Your task to perform on an android device: uninstall "DoorDash - Food Delivery" Image 0: 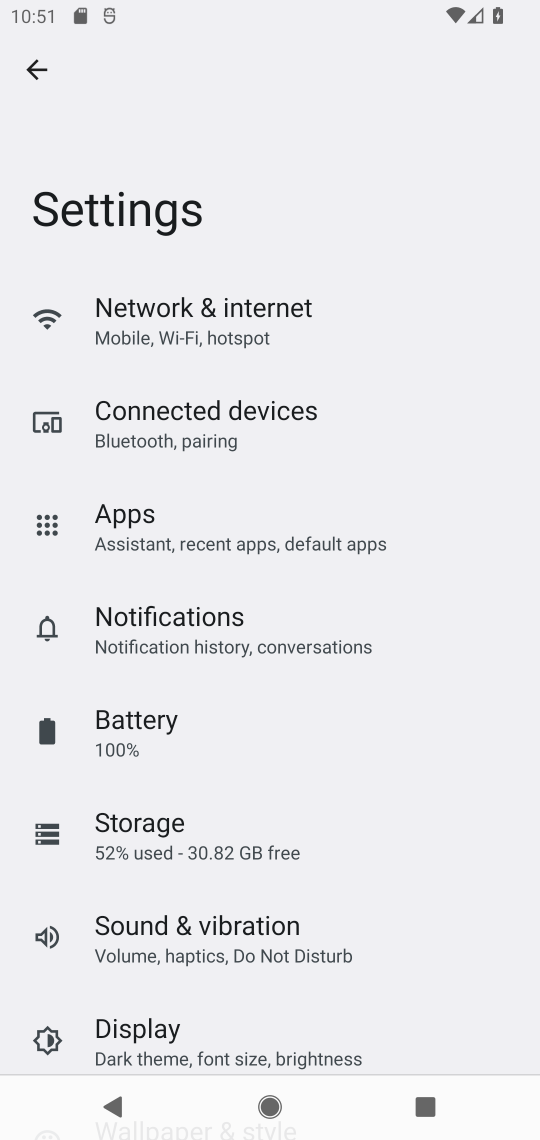
Step 0: press home button
Your task to perform on an android device: uninstall "DoorDash - Food Delivery" Image 1: 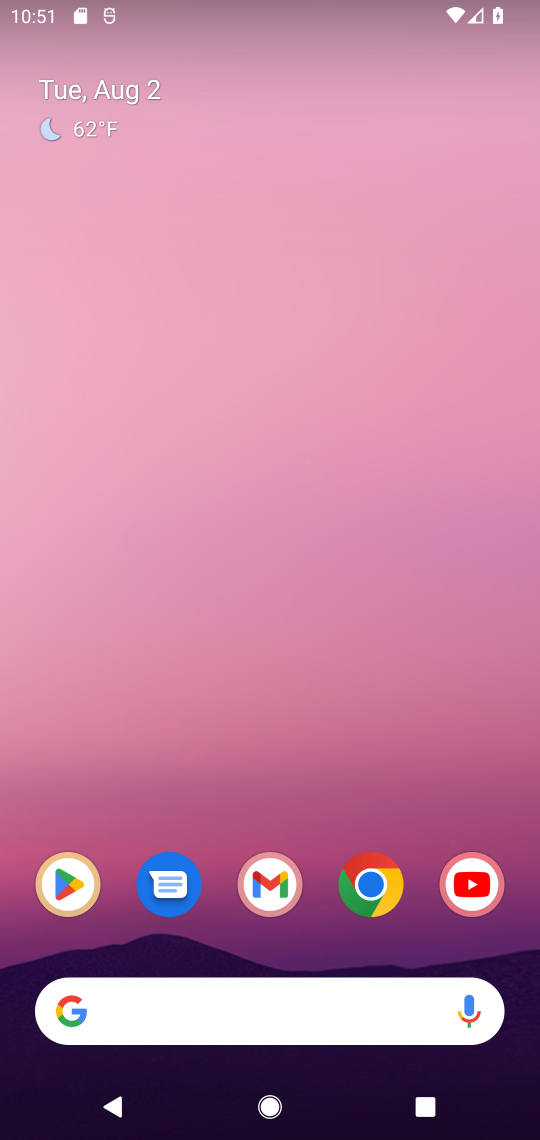
Step 1: click (61, 887)
Your task to perform on an android device: uninstall "DoorDash - Food Delivery" Image 2: 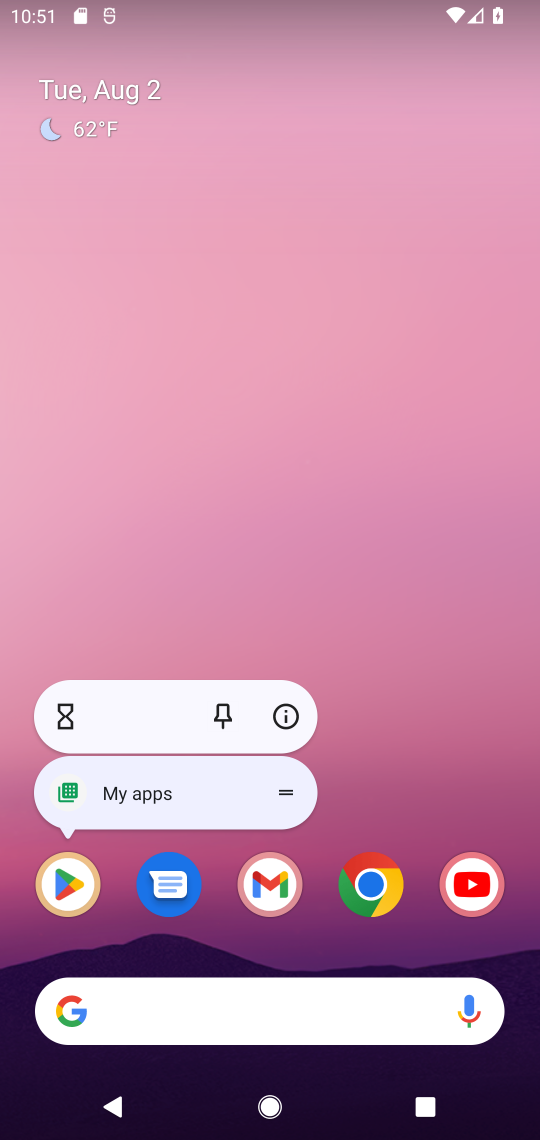
Step 2: click (70, 909)
Your task to perform on an android device: uninstall "DoorDash - Food Delivery" Image 3: 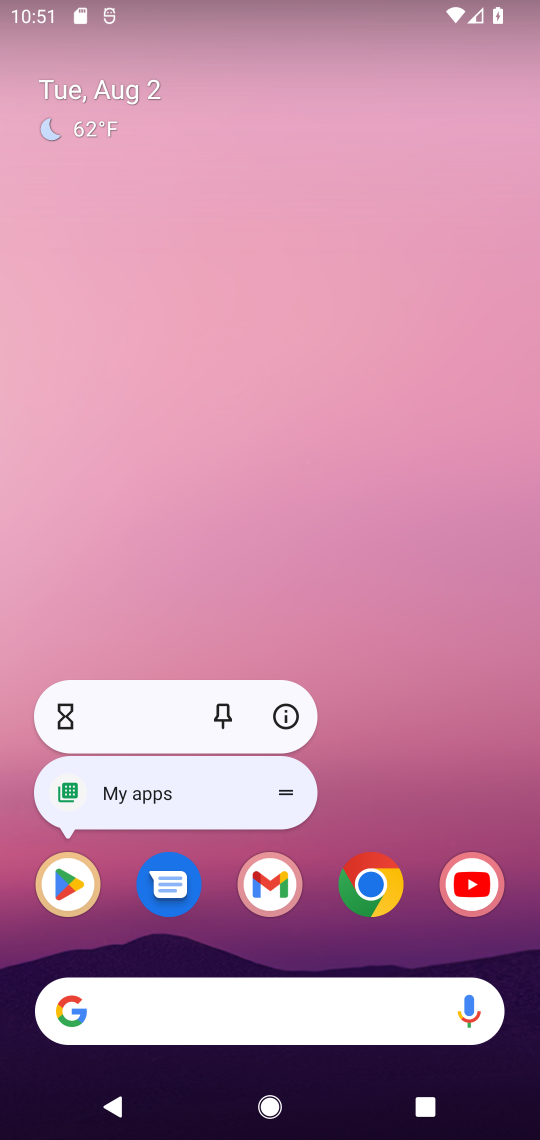
Step 3: click (81, 889)
Your task to perform on an android device: uninstall "DoorDash - Food Delivery" Image 4: 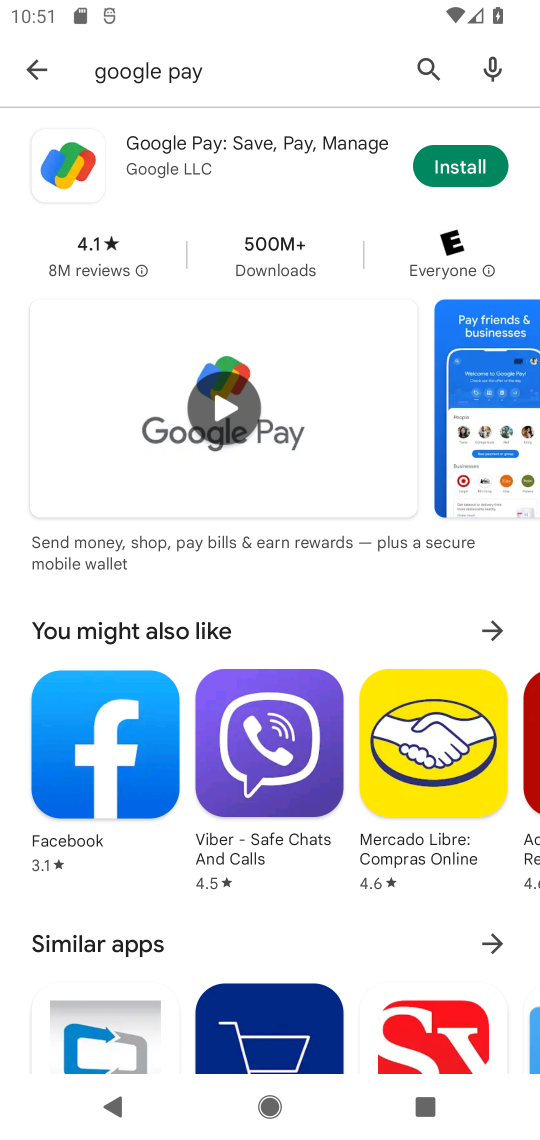
Step 4: click (275, 79)
Your task to perform on an android device: uninstall "DoorDash - Food Delivery" Image 5: 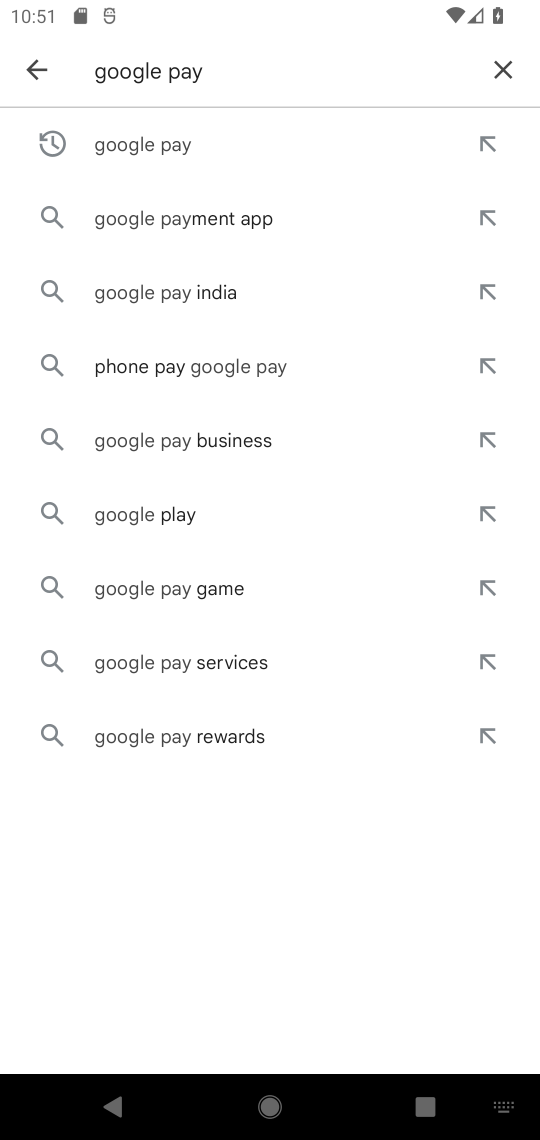
Step 5: click (493, 45)
Your task to perform on an android device: uninstall "DoorDash - Food Delivery" Image 6: 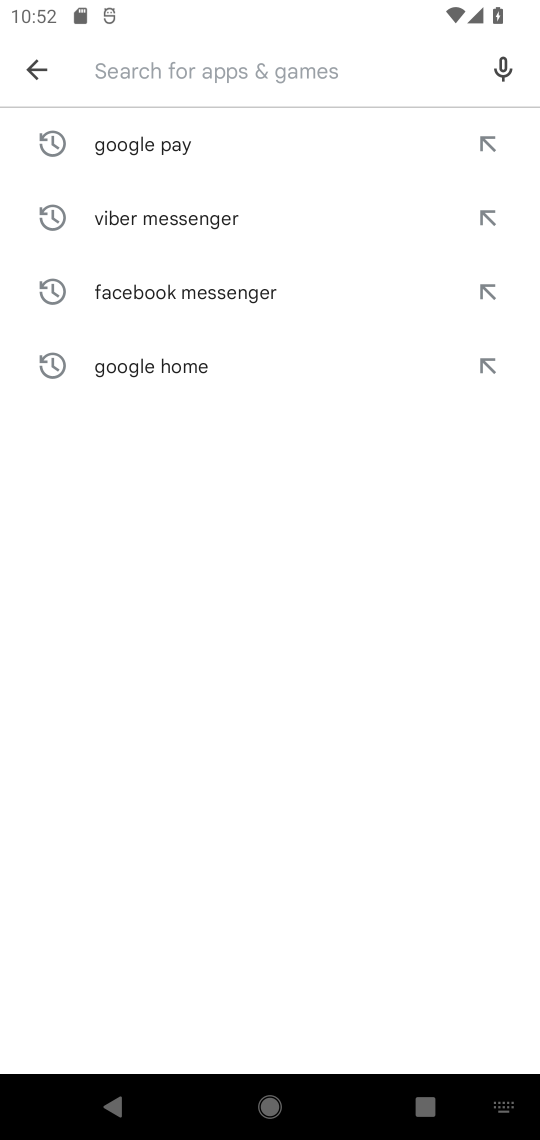
Step 6: type "DoorDash -Food delivery"
Your task to perform on an android device: uninstall "DoorDash - Food Delivery" Image 7: 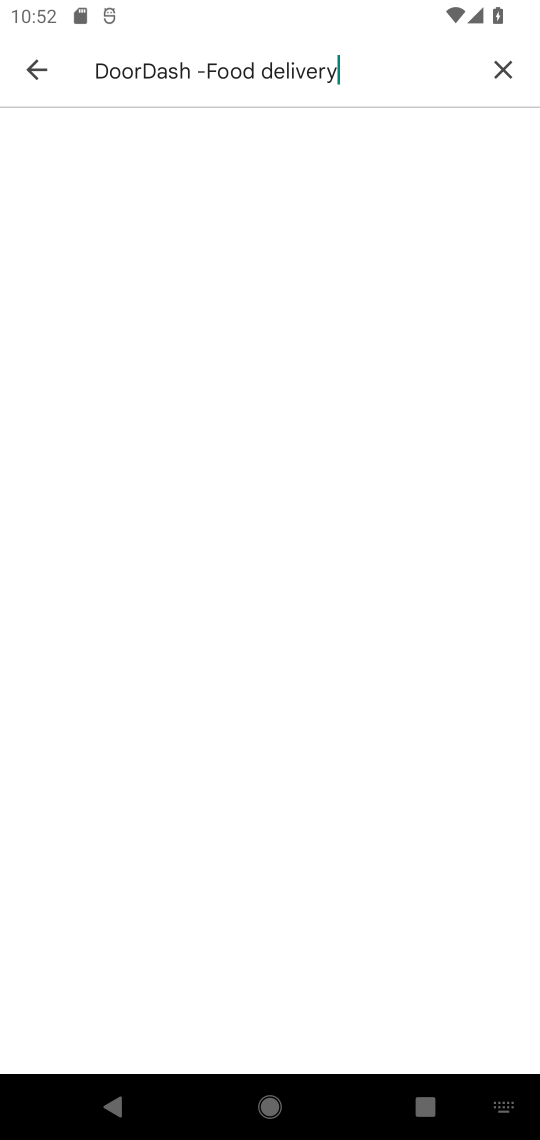
Step 7: click (229, 243)
Your task to perform on an android device: uninstall "DoorDash - Food Delivery" Image 8: 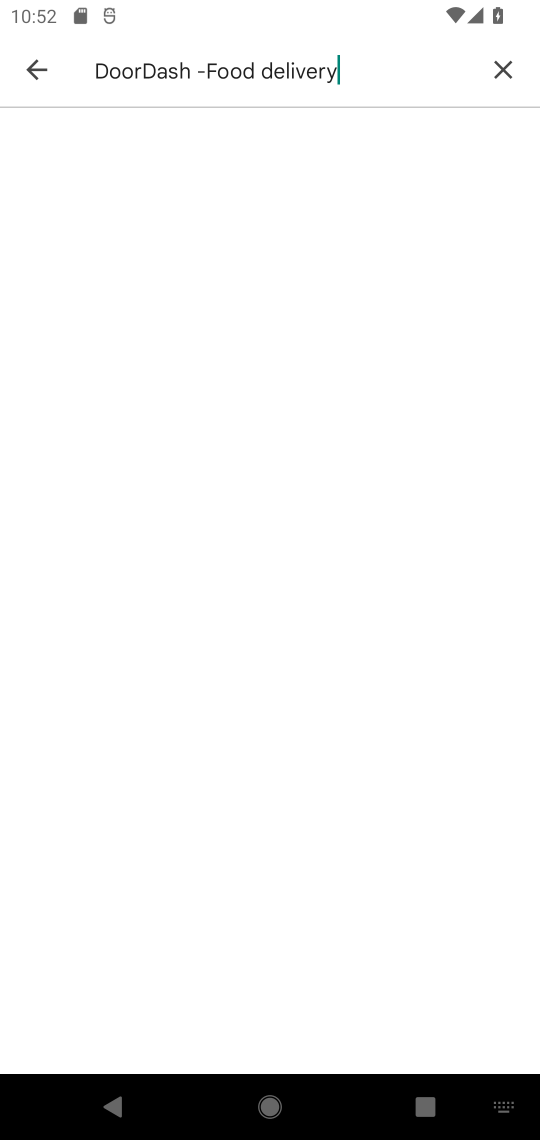
Step 8: click (187, 139)
Your task to perform on an android device: uninstall "DoorDash - Food Delivery" Image 9: 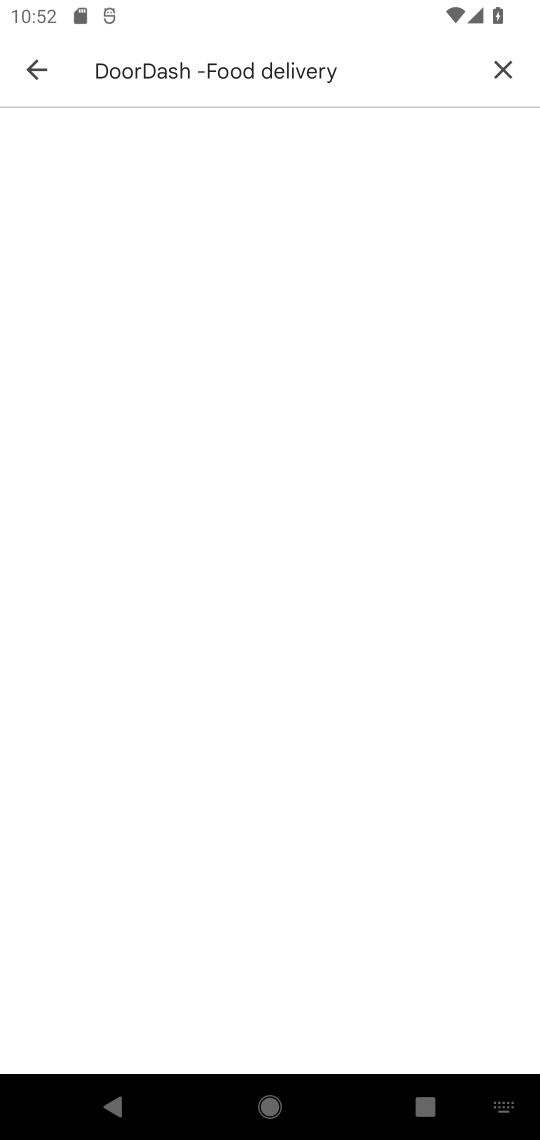
Step 9: click (190, 138)
Your task to perform on an android device: uninstall "DoorDash - Food Delivery" Image 10: 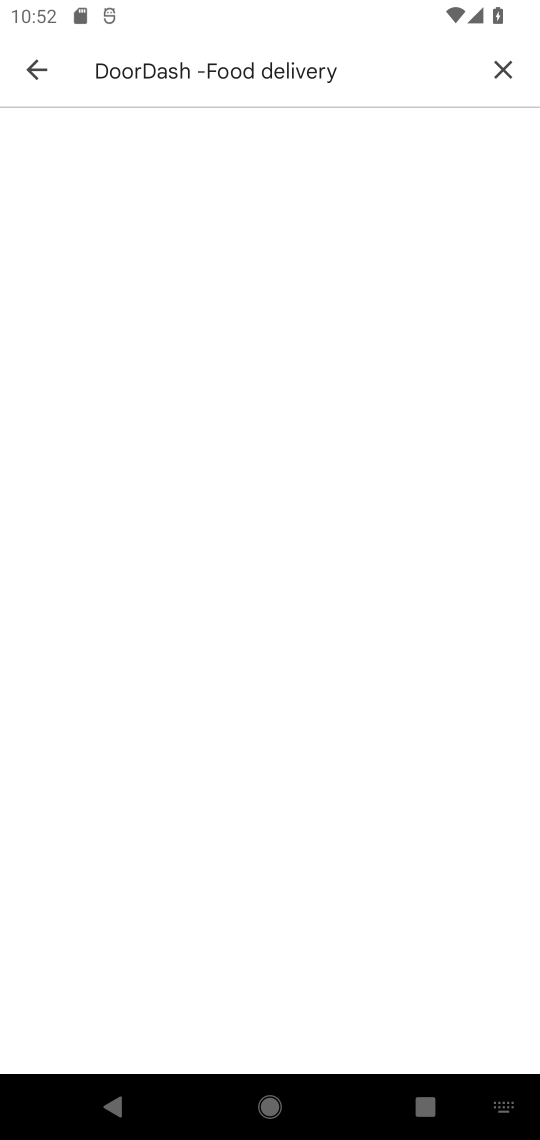
Step 10: click (40, 64)
Your task to perform on an android device: uninstall "DoorDash - Food Delivery" Image 11: 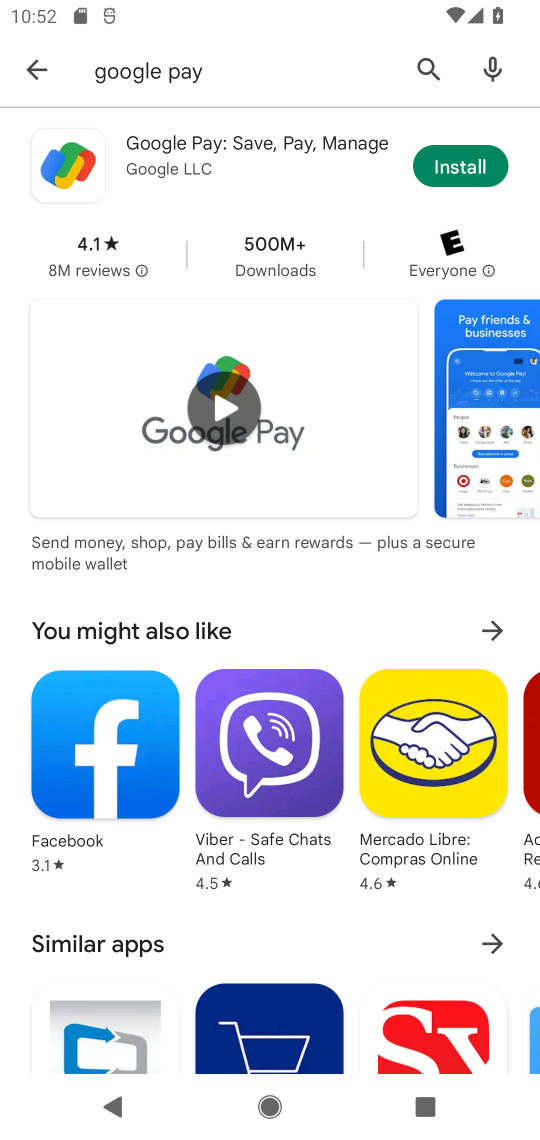
Step 11: click (34, 73)
Your task to perform on an android device: uninstall "DoorDash - Food Delivery" Image 12: 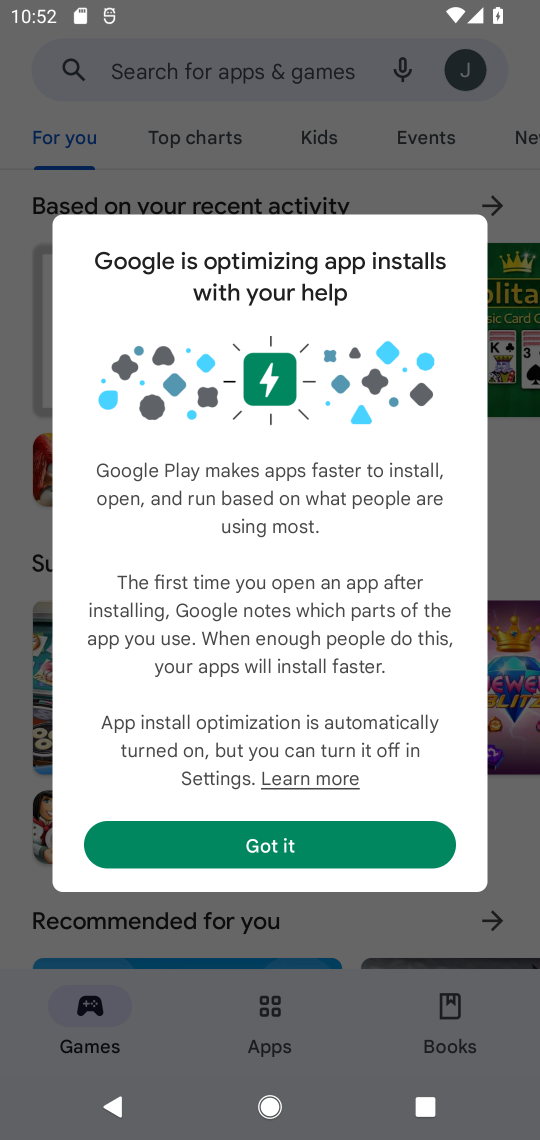
Step 12: click (296, 843)
Your task to perform on an android device: uninstall "DoorDash - Food Delivery" Image 13: 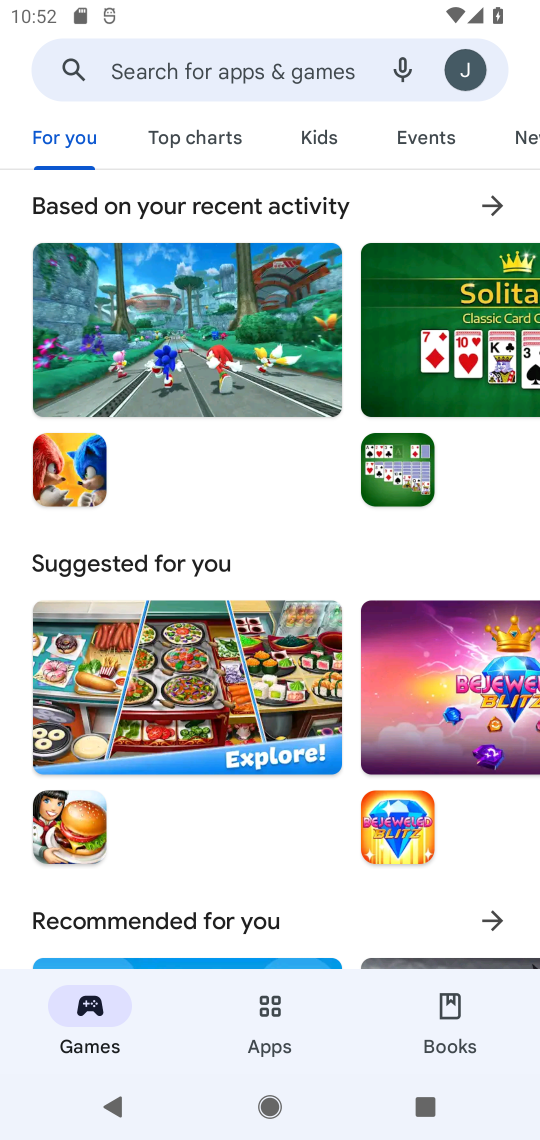
Step 13: click (244, 68)
Your task to perform on an android device: uninstall "DoorDash - Food Delivery" Image 14: 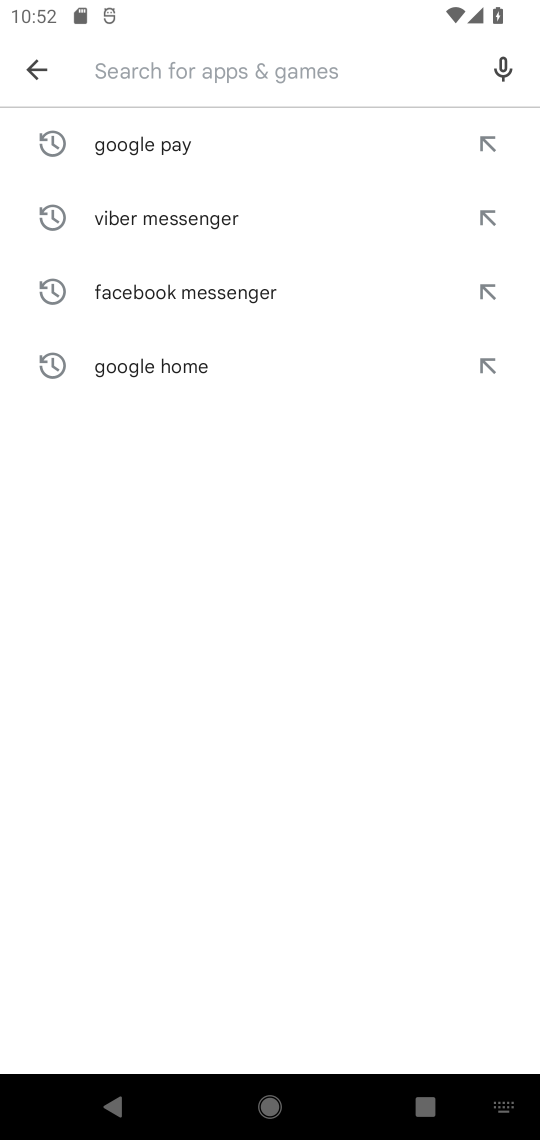
Step 14: type "DoorDash"
Your task to perform on an android device: uninstall "DoorDash - Food Delivery" Image 15: 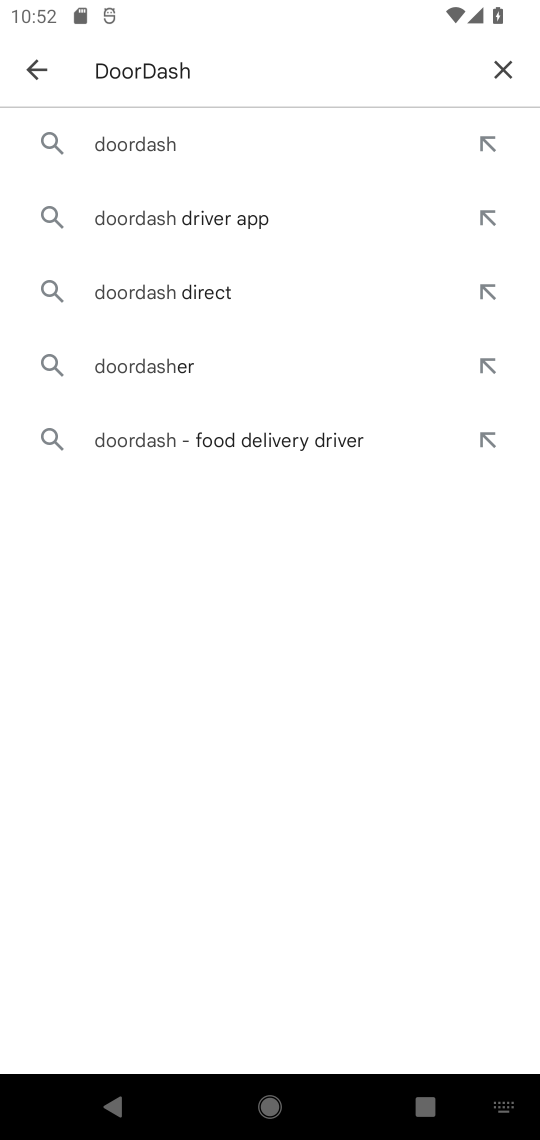
Step 15: click (131, 140)
Your task to perform on an android device: uninstall "DoorDash - Food Delivery" Image 16: 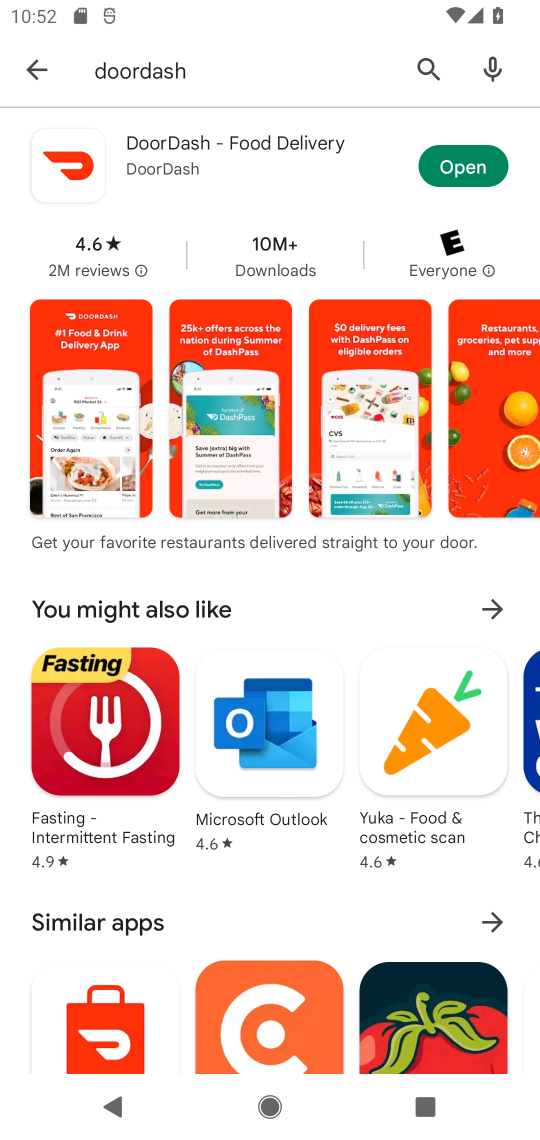
Step 16: click (11, 165)
Your task to perform on an android device: uninstall "DoorDash - Food Delivery" Image 17: 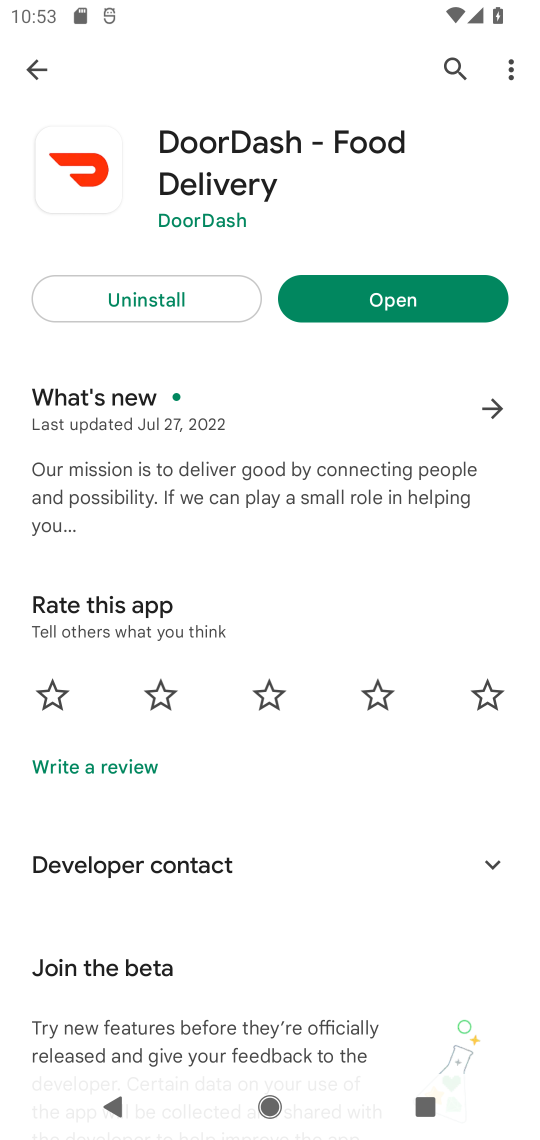
Step 17: click (161, 306)
Your task to perform on an android device: uninstall "DoorDash - Food Delivery" Image 18: 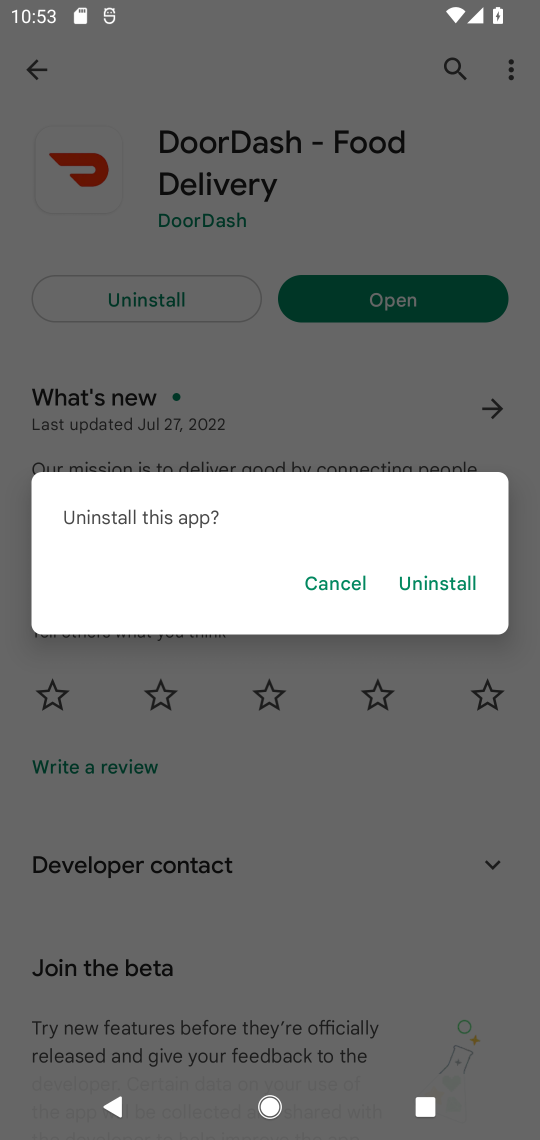
Step 18: click (434, 586)
Your task to perform on an android device: uninstall "DoorDash - Food Delivery" Image 19: 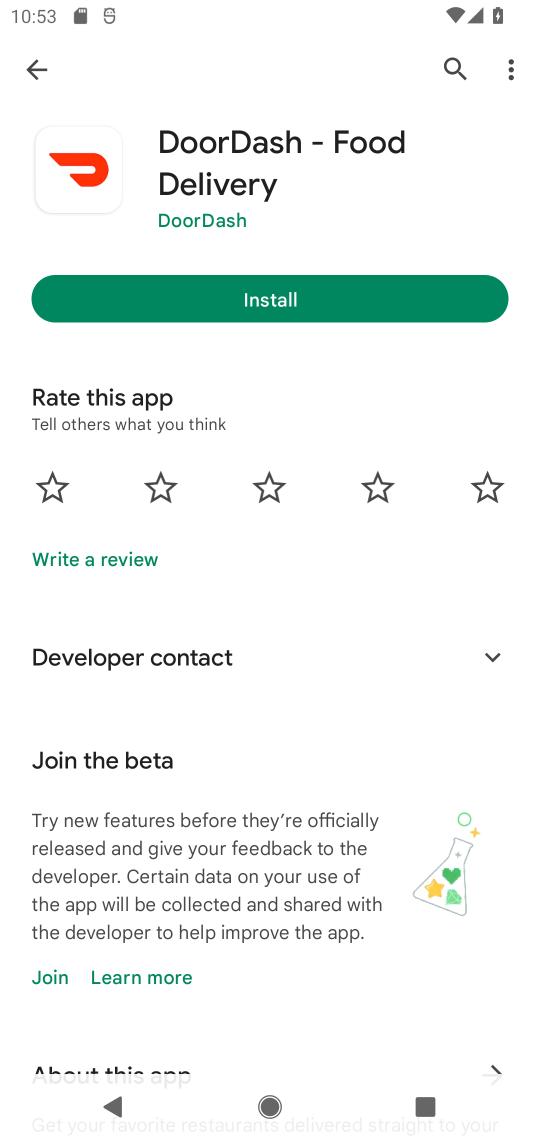
Step 19: task complete